Your task to perform on an android device: Open CNN.com Image 0: 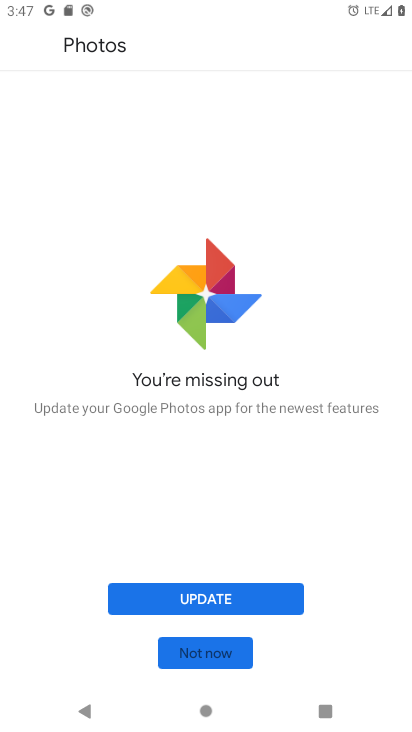
Step 0: press home button
Your task to perform on an android device: Open CNN.com Image 1: 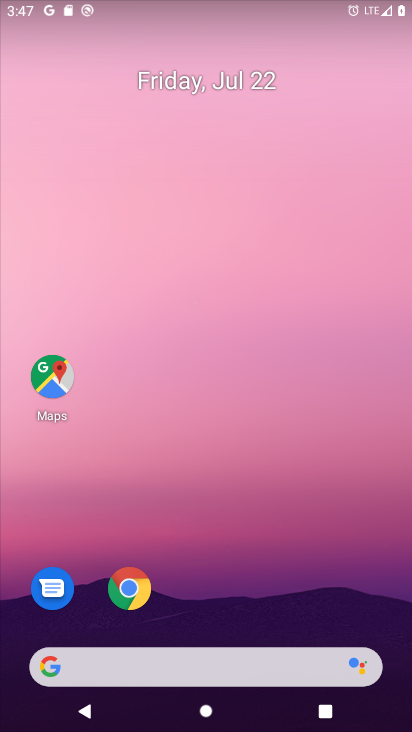
Step 1: click (130, 582)
Your task to perform on an android device: Open CNN.com Image 2: 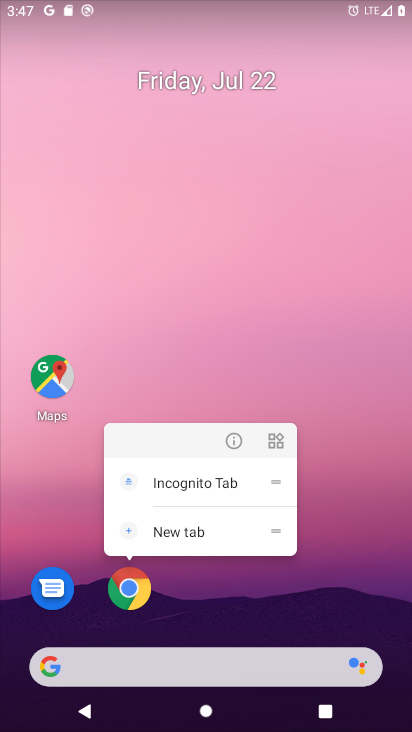
Step 2: click (130, 586)
Your task to perform on an android device: Open CNN.com Image 3: 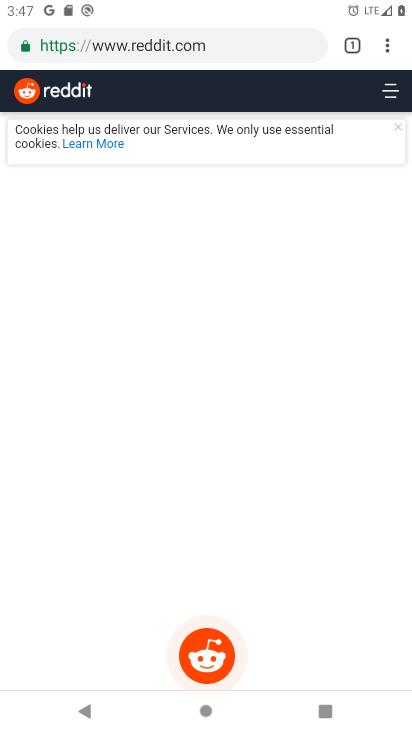
Step 3: click (178, 45)
Your task to perform on an android device: Open CNN.com Image 4: 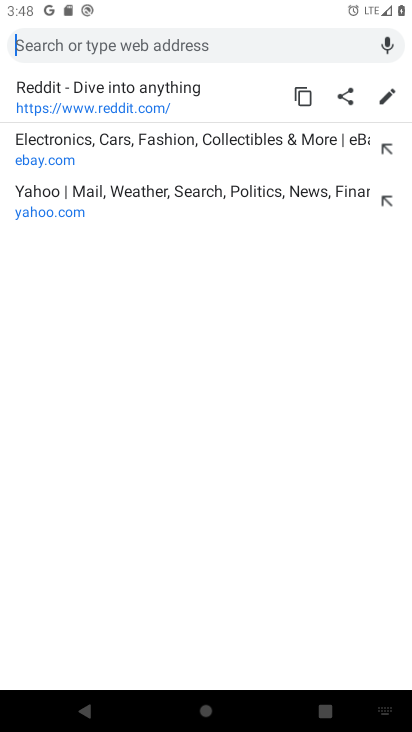
Step 4: type " CNN.com"
Your task to perform on an android device: Open CNN.com Image 5: 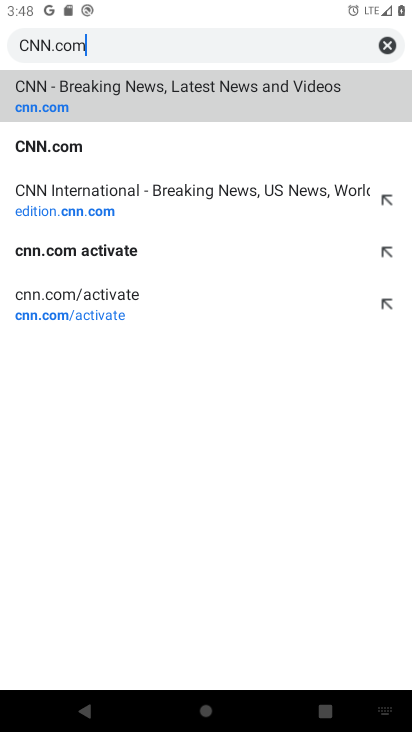
Step 5: click (62, 107)
Your task to perform on an android device: Open CNN.com Image 6: 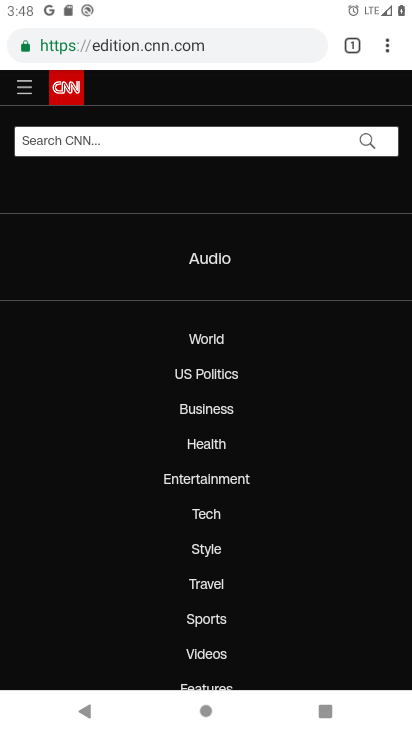
Step 6: task complete